Your task to perform on an android device: turn off notifications in google photos Image 0: 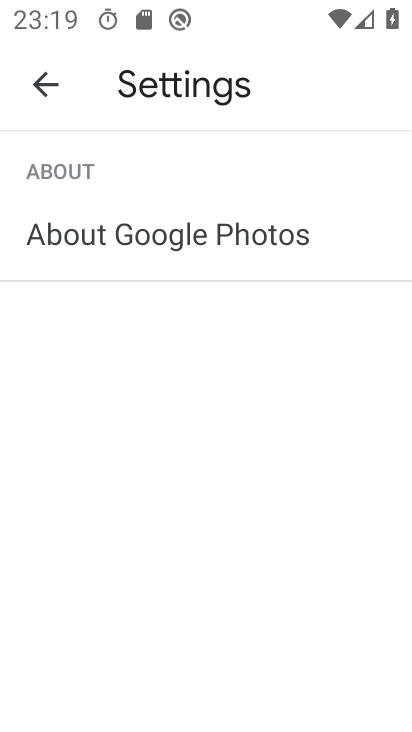
Step 0: press home button
Your task to perform on an android device: turn off notifications in google photos Image 1: 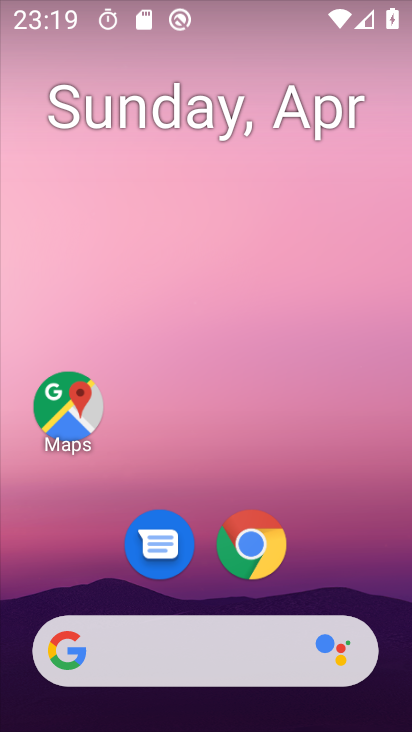
Step 1: click (317, 303)
Your task to perform on an android device: turn off notifications in google photos Image 2: 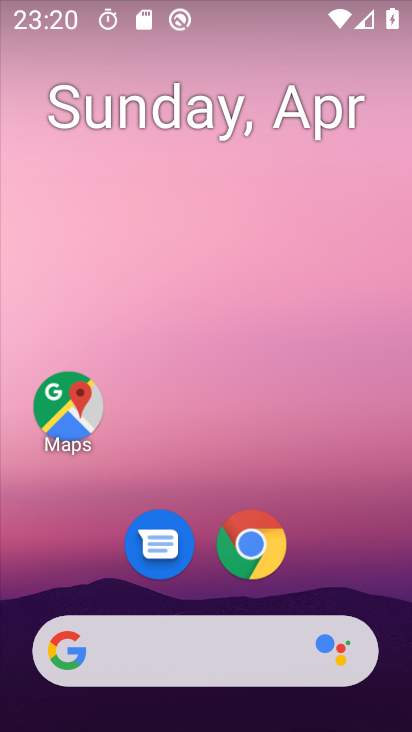
Step 2: drag from (334, 564) to (298, 246)
Your task to perform on an android device: turn off notifications in google photos Image 3: 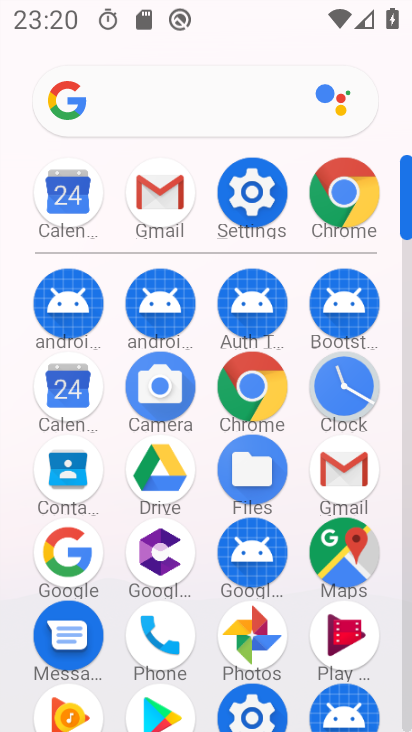
Step 3: click (250, 619)
Your task to perform on an android device: turn off notifications in google photos Image 4: 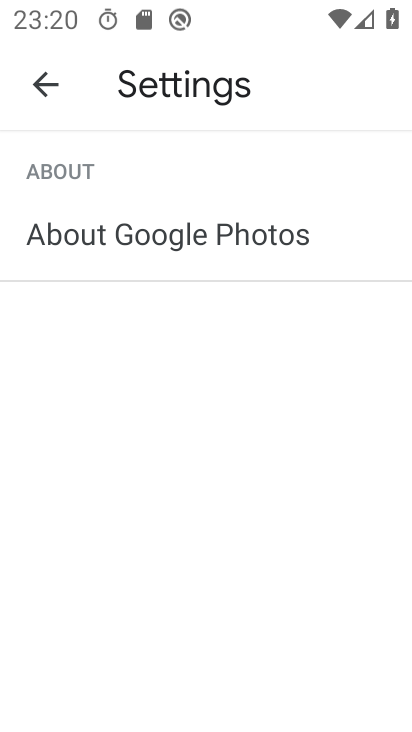
Step 4: click (53, 76)
Your task to perform on an android device: turn off notifications in google photos Image 5: 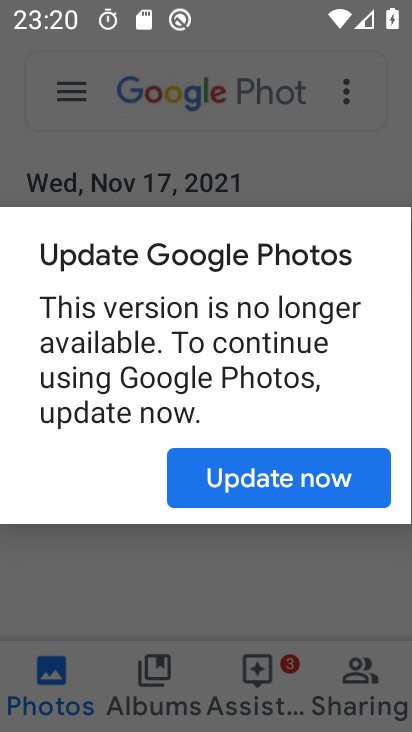
Step 5: click (293, 477)
Your task to perform on an android device: turn off notifications in google photos Image 6: 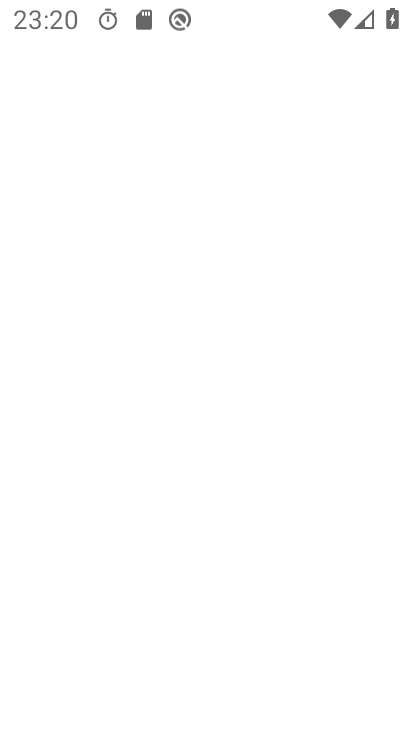
Step 6: press back button
Your task to perform on an android device: turn off notifications in google photos Image 7: 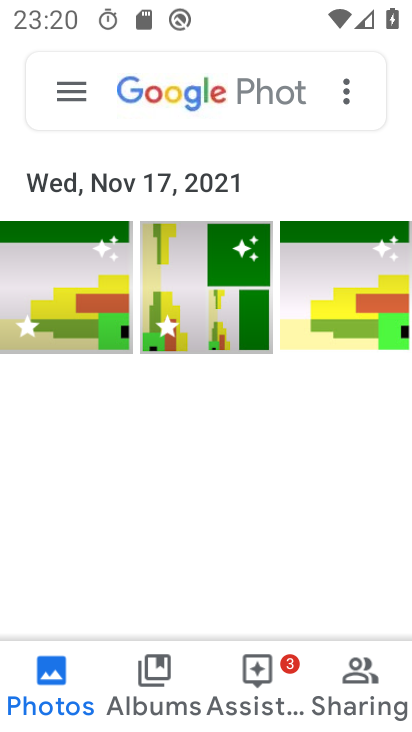
Step 7: click (67, 78)
Your task to perform on an android device: turn off notifications in google photos Image 8: 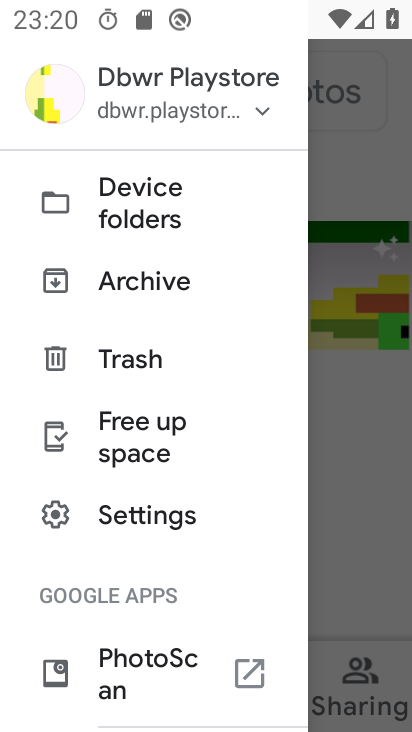
Step 8: click (168, 518)
Your task to perform on an android device: turn off notifications in google photos Image 9: 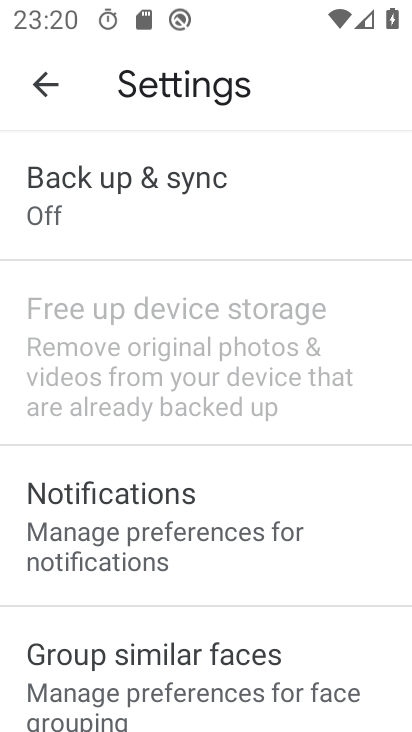
Step 9: click (176, 507)
Your task to perform on an android device: turn off notifications in google photos Image 10: 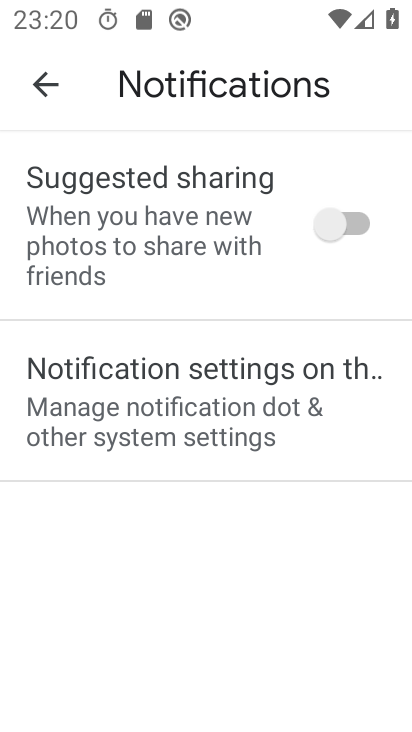
Step 10: click (258, 380)
Your task to perform on an android device: turn off notifications in google photos Image 11: 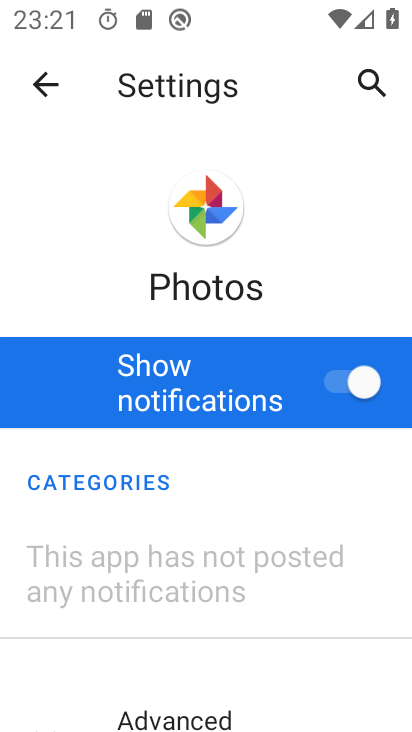
Step 11: task complete